Your task to perform on an android device: Go to ESPN.com Image 0: 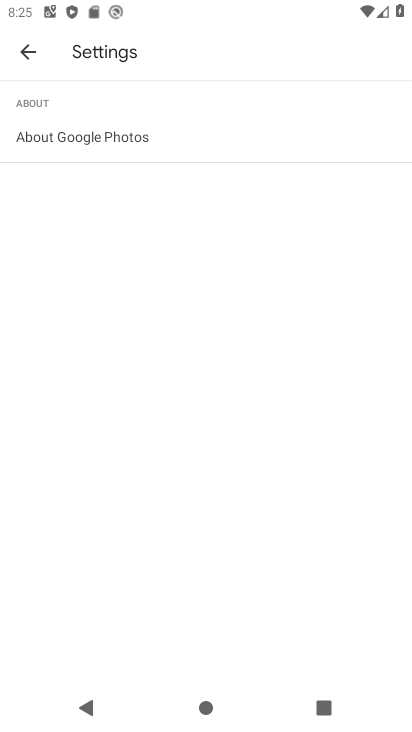
Step 0: press home button
Your task to perform on an android device: Go to ESPN.com Image 1: 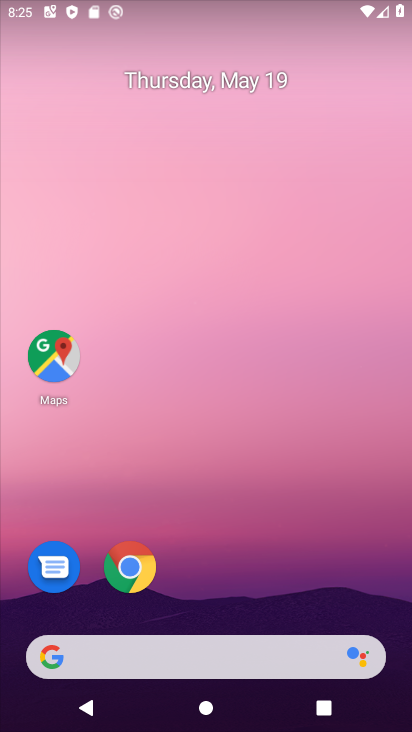
Step 1: click (123, 569)
Your task to perform on an android device: Go to ESPN.com Image 2: 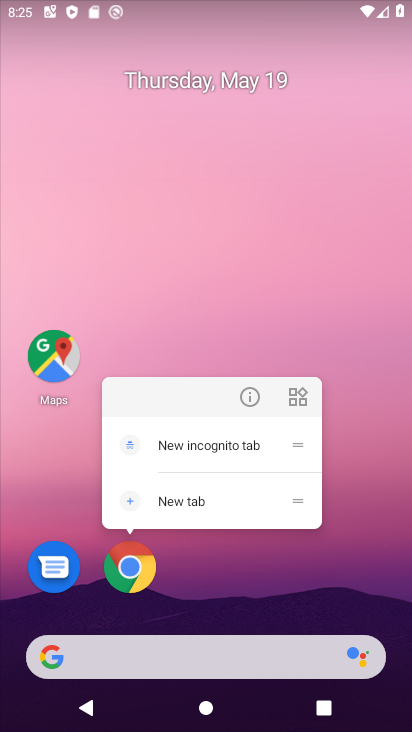
Step 2: click (139, 571)
Your task to perform on an android device: Go to ESPN.com Image 3: 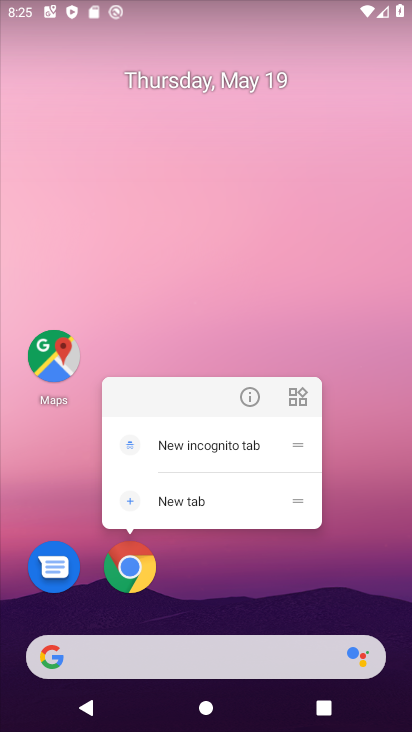
Step 3: click (139, 571)
Your task to perform on an android device: Go to ESPN.com Image 4: 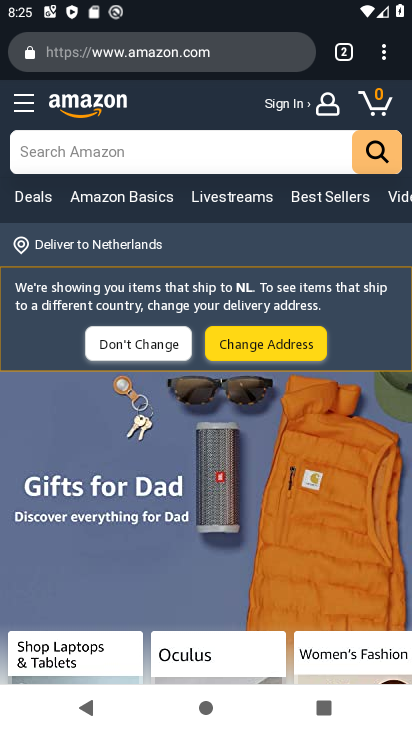
Step 4: click (174, 49)
Your task to perform on an android device: Go to ESPN.com Image 5: 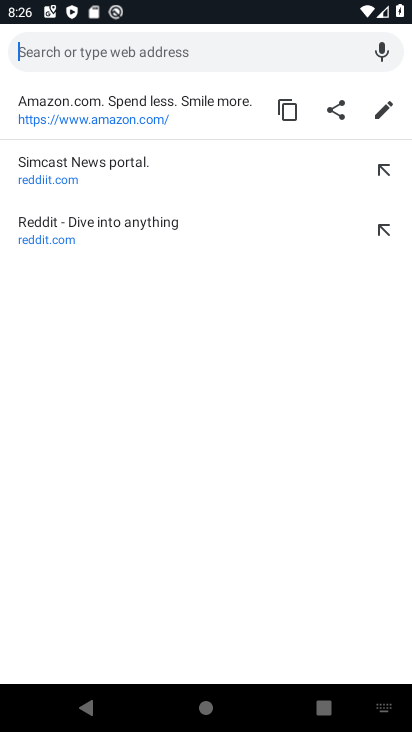
Step 5: type "ESPN.com"
Your task to perform on an android device: Go to ESPN.com Image 6: 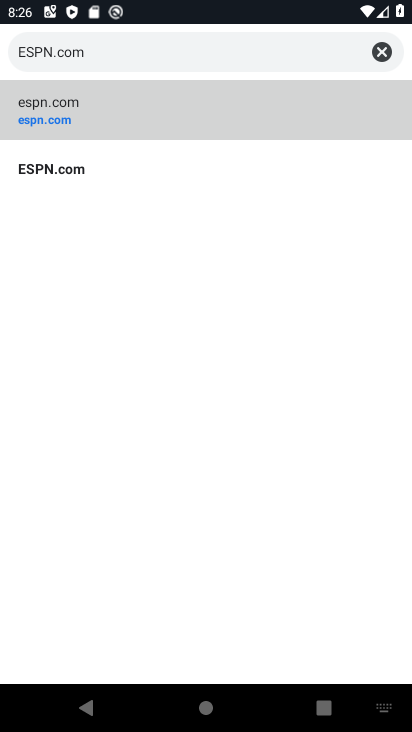
Step 6: click (76, 179)
Your task to perform on an android device: Go to ESPN.com Image 7: 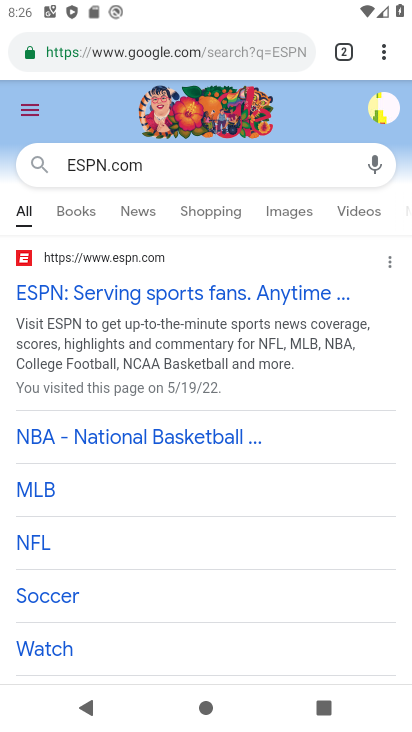
Step 7: task complete